Your task to perform on an android device: turn on the 24-hour format for clock Image 0: 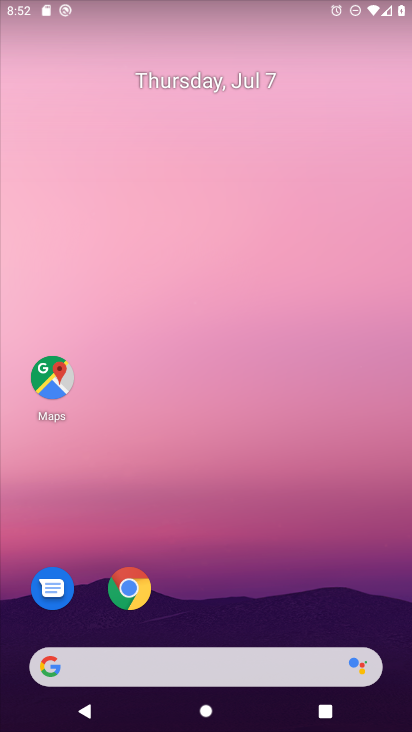
Step 0: drag from (195, 616) to (243, 156)
Your task to perform on an android device: turn on the 24-hour format for clock Image 1: 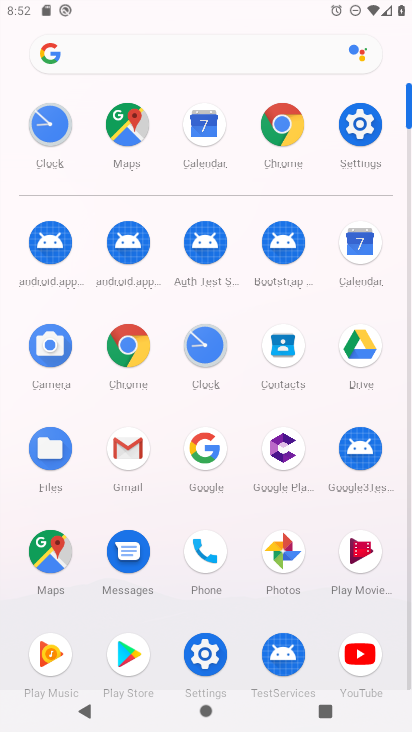
Step 1: click (206, 339)
Your task to perform on an android device: turn on the 24-hour format for clock Image 2: 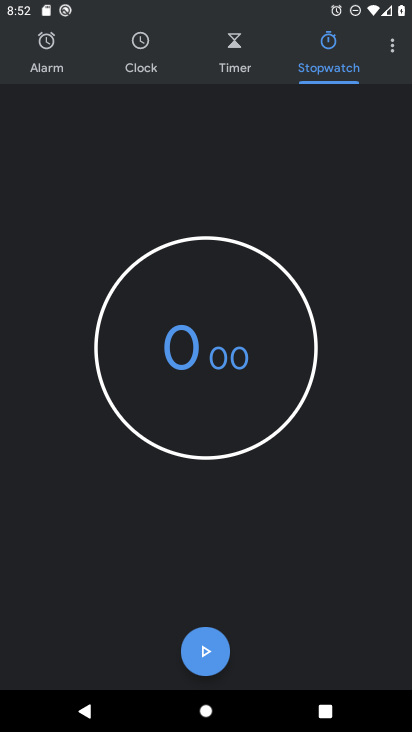
Step 2: click (389, 54)
Your task to perform on an android device: turn on the 24-hour format for clock Image 3: 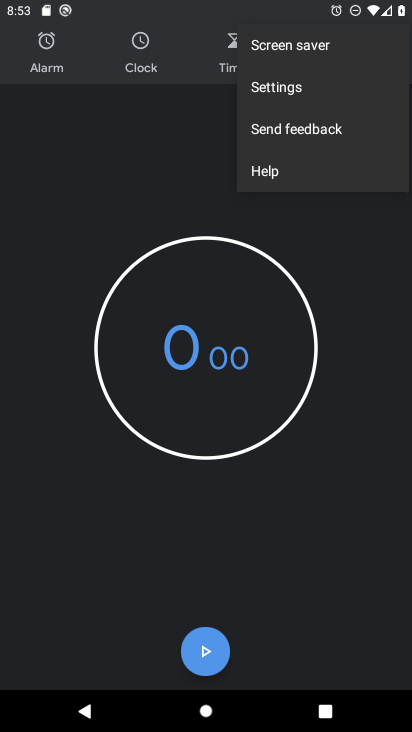
Step 3: click (281, 93)
Your task to perform on an android device: turn on the 24-hour format for clock Image 4: 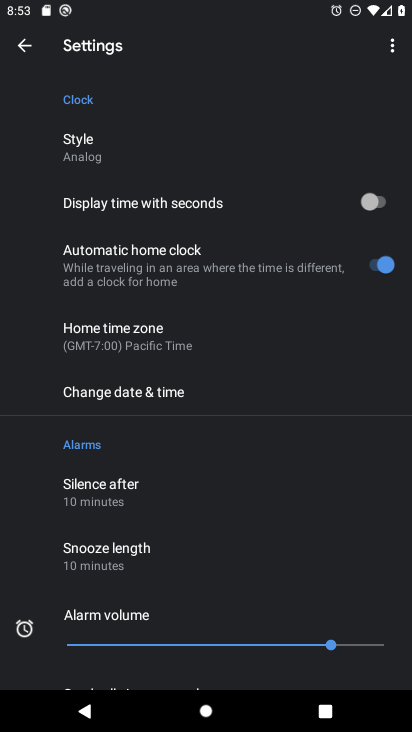
Step 4: drag from (272, 480) to (245, 124)
Your task to perform on an android device: turn on the 24-hour format for clock Image 5: 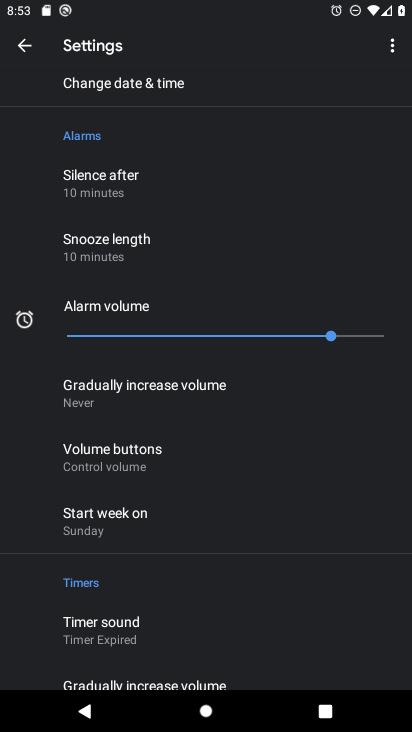
Step 5: drag from (183, 546) to (194, 144)
Your task to perform on an android device: turn on the 24-hour format for clock Image 6: 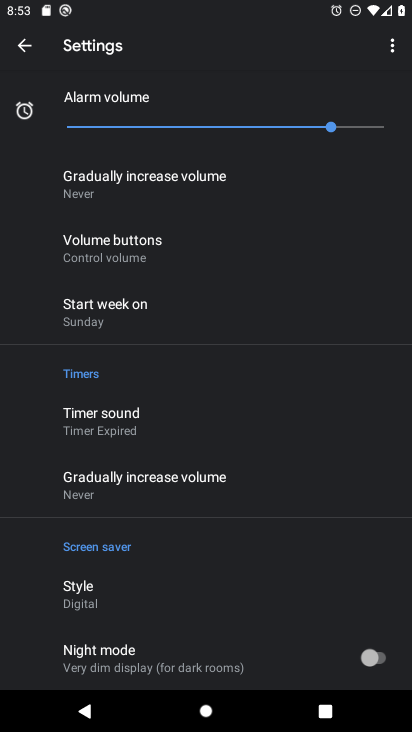
Step 6: drag from (155, 587) to (198, 214)
Your task to perform on an android device: turn on the 24-hour format for clock Image 7: 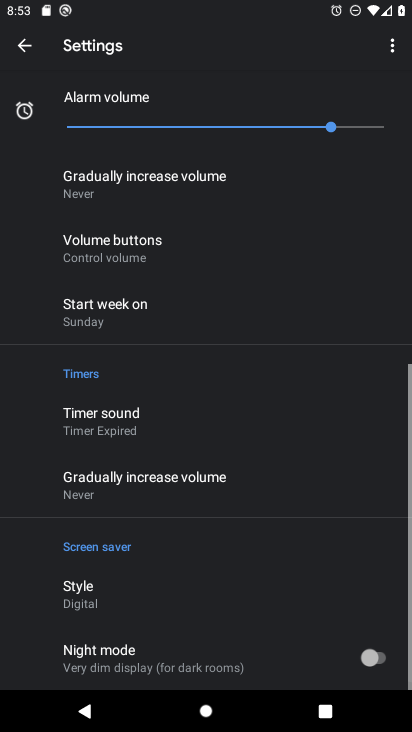
Step 7: drag from (204, 203) to (216, 555)
Your task to perform on an android device: turn on the 24-hour format for clock Image 8: 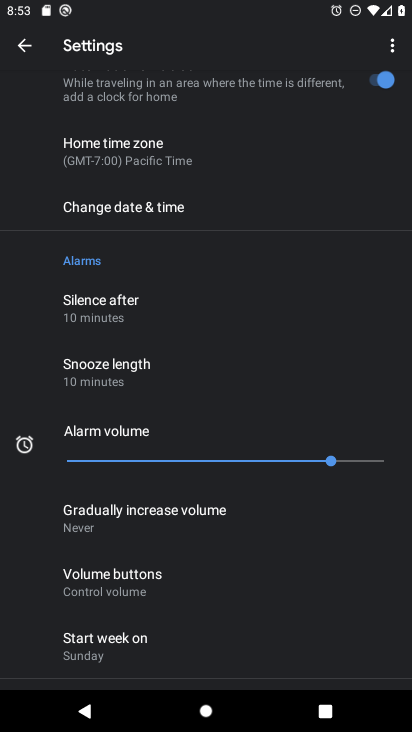
Step 8: drag from (196, 203) to (212, 518)
Your task to perform on an android device: turn on the 24-hour format for clock Image 9: 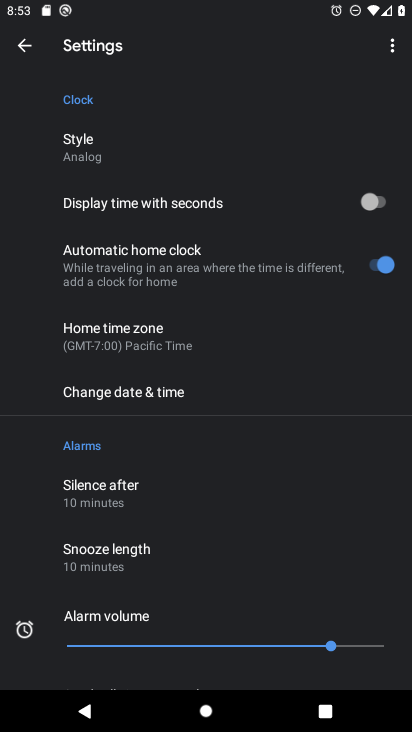
Step 9: drag from (180, 192) to (205, 551)
Your task to perform on an android device: turn on the 24-hour format for clock Image 10: 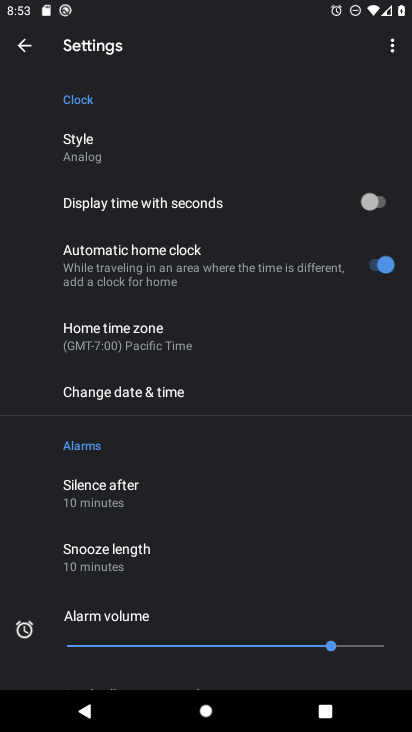
Step 10: drag from (234, 477) to (261, 163)
Your task to perform on an android device: turn on the 24-hour format for clock Image 11: 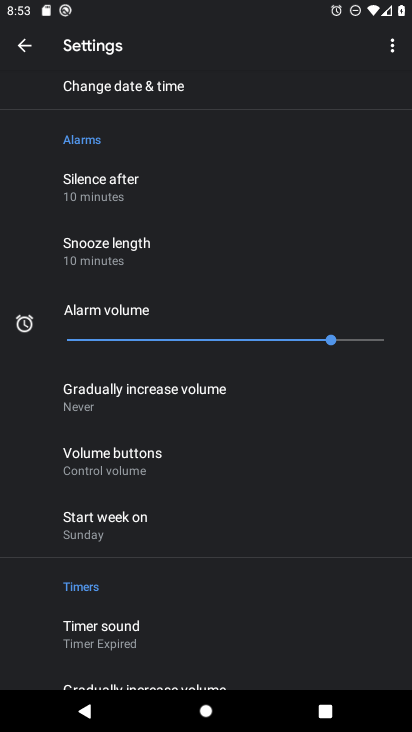
Step 11: drag from (202, 522) to (237, 148)
Your task to perform on an android device: turn on the 24-hour format for clock Image 12: 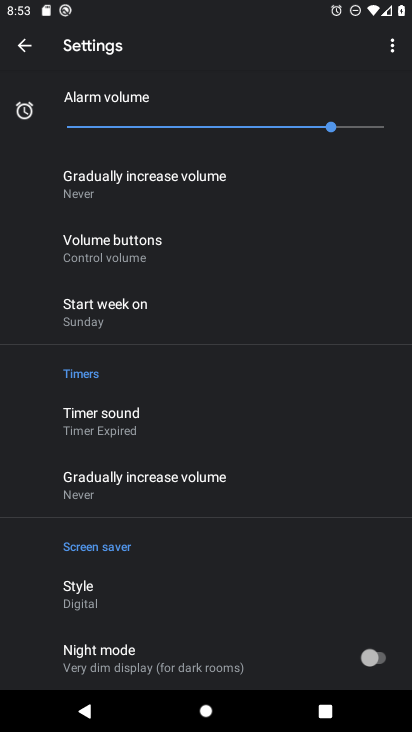
Step 12: drag from (222, 200) to (199, 586)
Your task to perform on an android device: turn on the 24-hour format for clock Image 13: 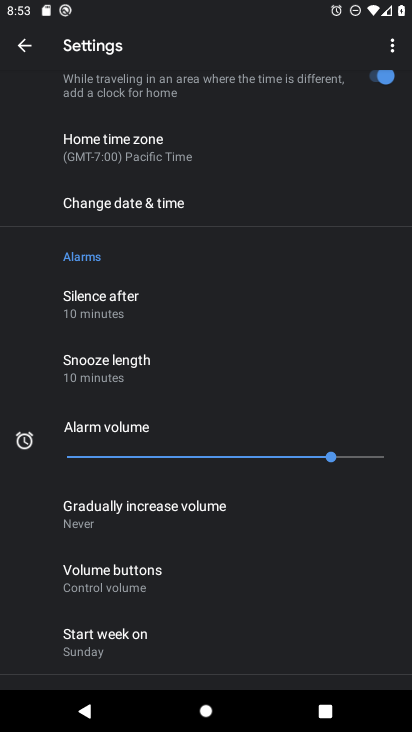
Step 13: click (179, 208)
Your task to perform on an android device: turn on the 24-hour format for clock Image 14: 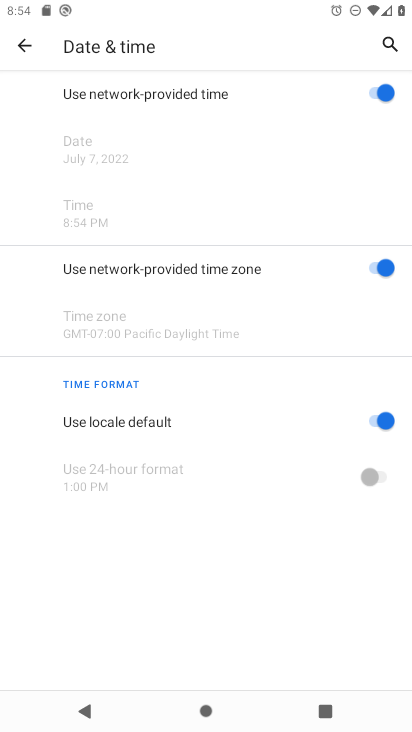
Step 14: click (365, 410)
Your task to perform on an android device: turn on the 24-hour format for clock Image 15: 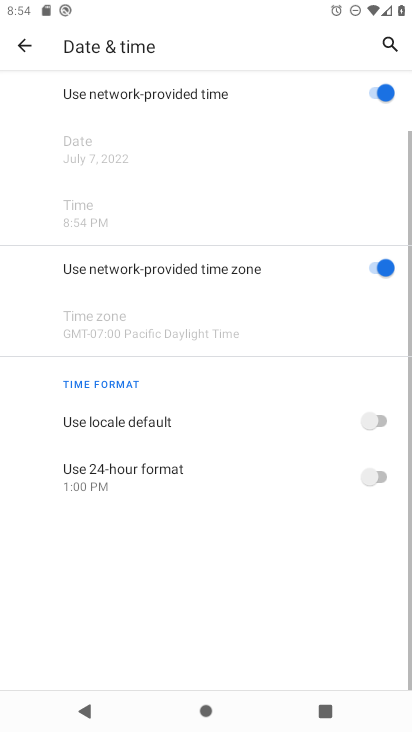
Step 15: click (374, 480)
Your task to perform on an android device: turn on the 24-hour format for clock Image 16: 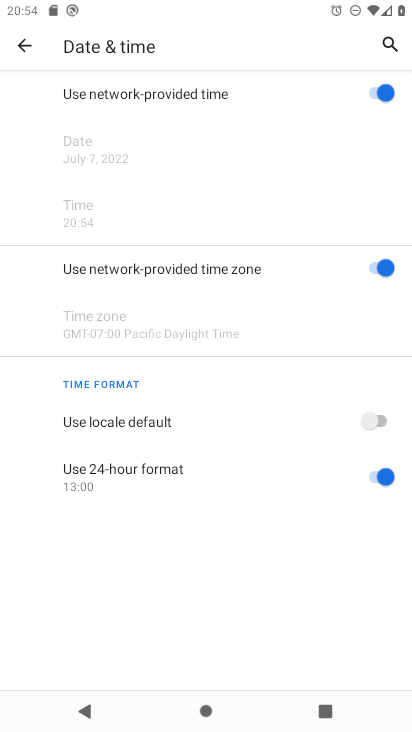
Step 16: task complete